Your task to perform on an android device: Open Reddit.com Image 0: 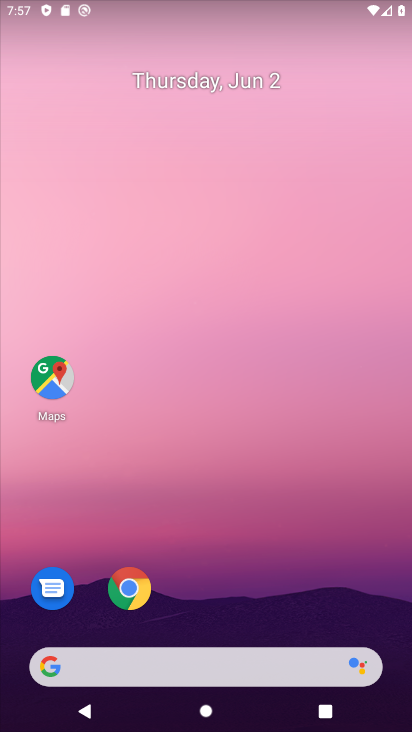
Step 0: click (126, 585)
Your task to perform on an android device: Open Reddit.com Image 1: 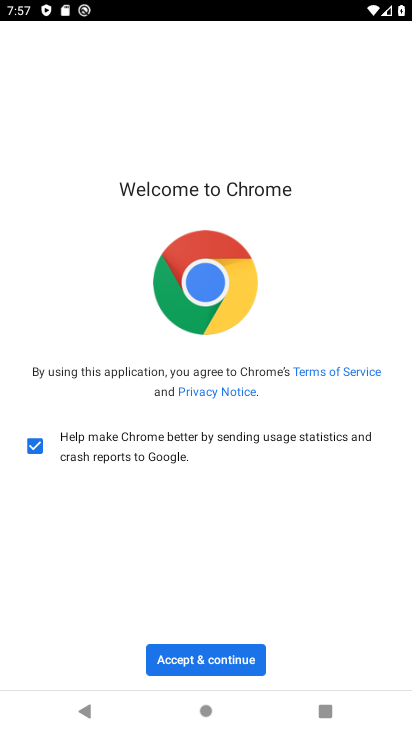
Step 1: click (219, 657)
Your task to perform on an android device: Open Reddit.com Image 2: 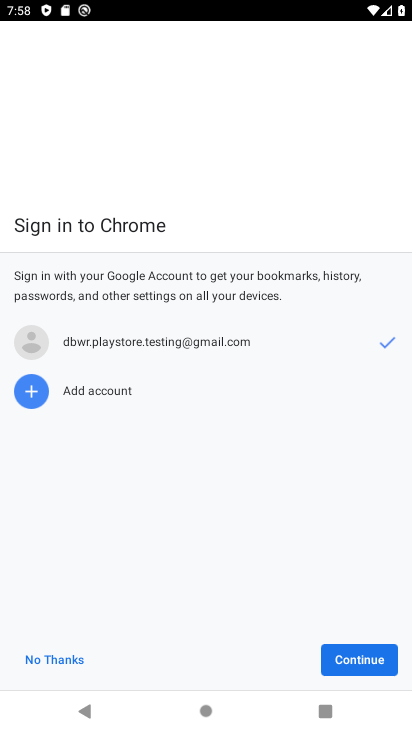
Step 2: click (382, 660)
Your task to perform on an android device: Open Reddit.com Image 3: 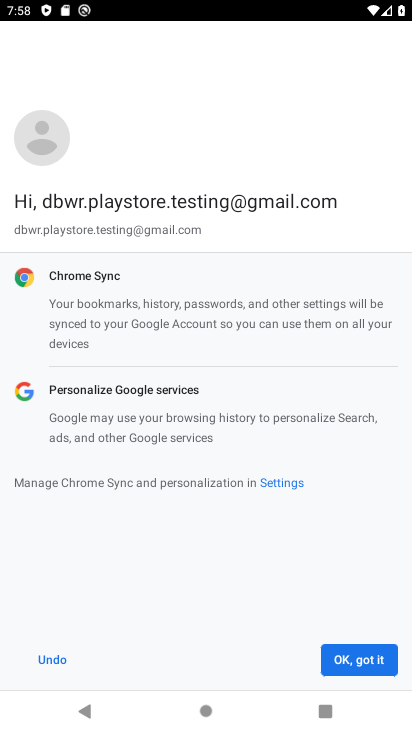
Step 3: click (368, 658)
Your task to perform on an android device: Open Reddit.com Image 4: 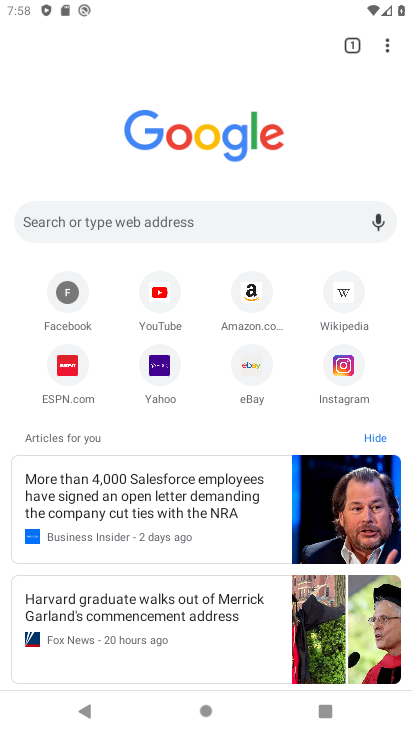
Step 4: click (183, 207)
Your task to perform on an android device: Open Reddit.com Image 5: 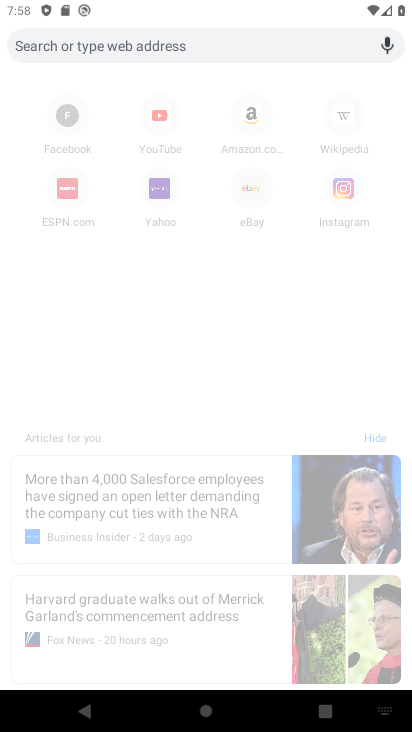
Step 5: type "Reddit.com"
Your task to perform on an android device: Open Reddit.com Image 6: 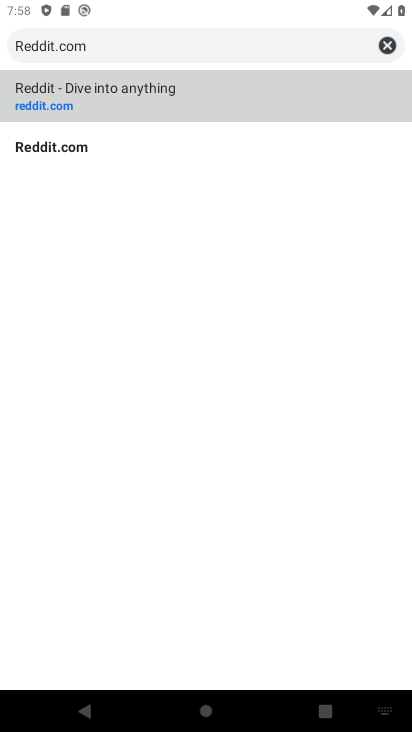
Step 6: click (64, 146)
Your task to perform on an android device: Open Reddit.com Image 7: 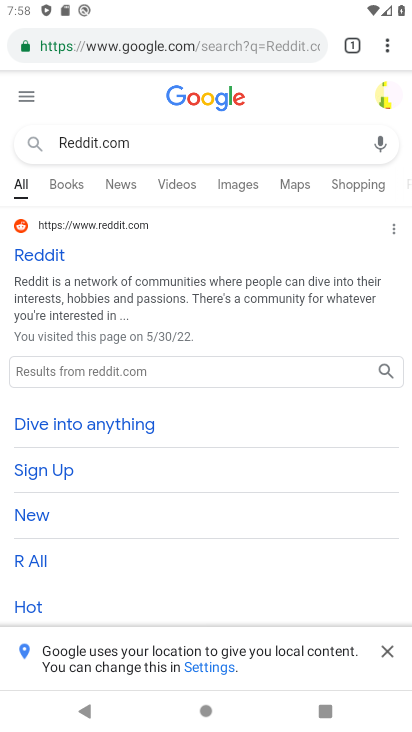
Step 7: click (35, 254)
Your task to perform on an android device: Open Reddit.com Image 8: 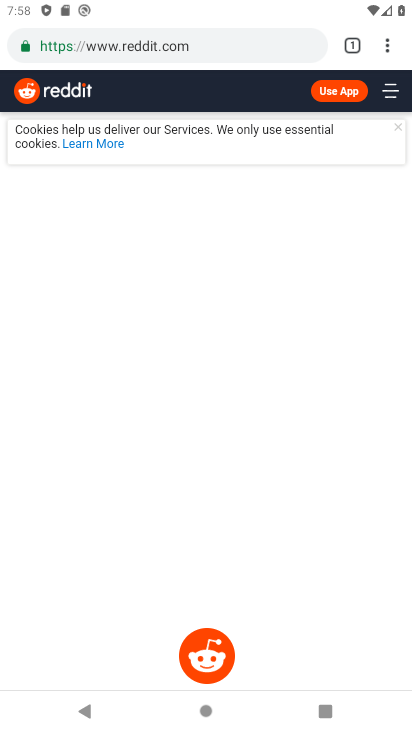
Step 8: task complete